Your task to perform on an android device: turn off wifi Image 0: 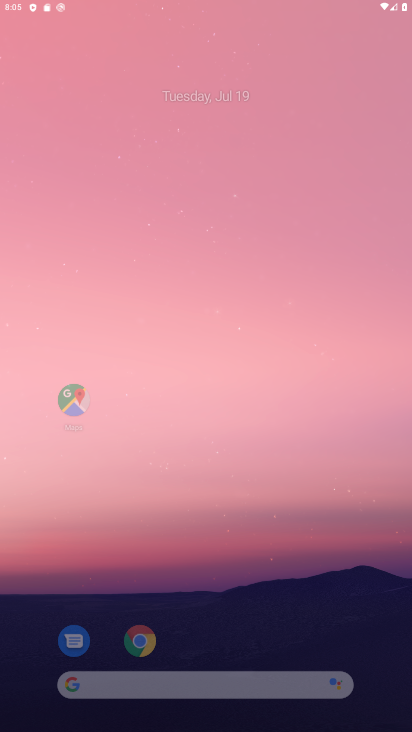
Step 0: press home button
Your task to perform on an android device: turn off wifi Image 1: 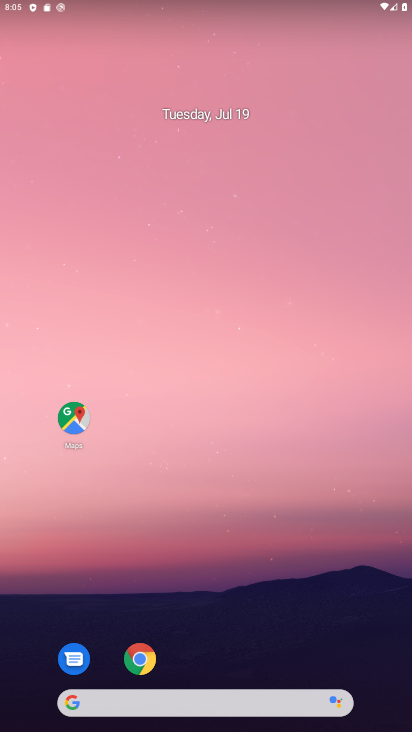
Step 1: drag from (310, 672) to (229, 114)
Your task to perform on an android device: turn off wifi Image 2: 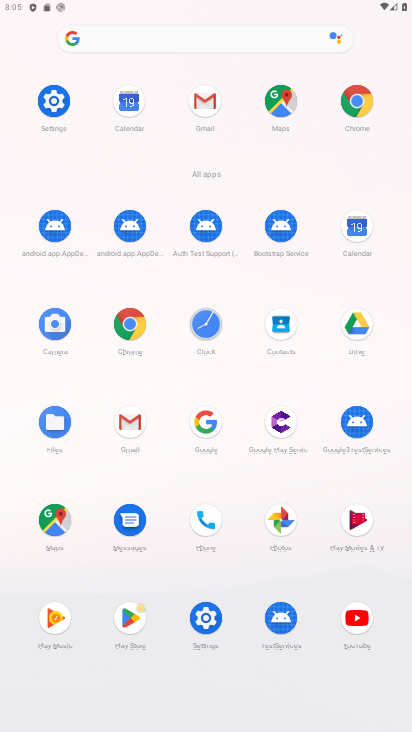
Step 2: click (376, 6)
Your task to perform on an android device: turn off wifi Image 3: 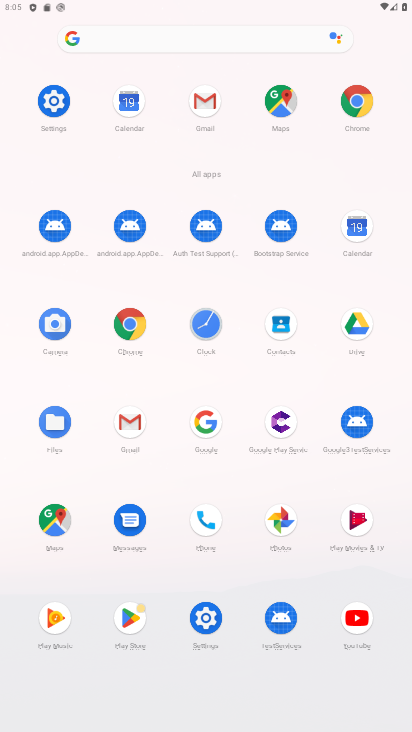
Step 3: drag from (378, 1) to (315, 474)
Your task to perform on an android device: turn off wifi Image 4: 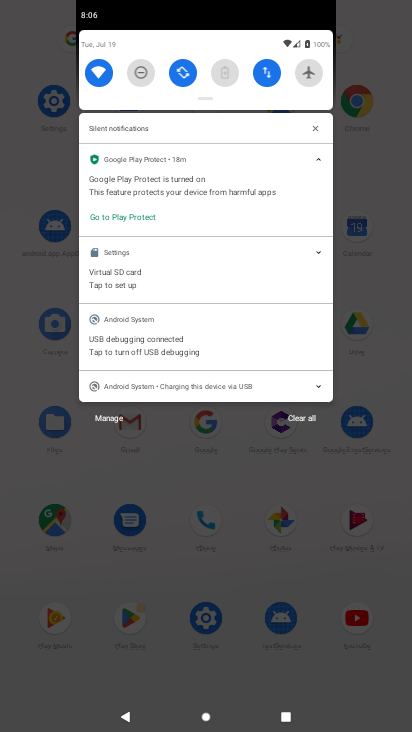
Step 4: click (108, 69)
Your task to perform on an android device: turn off wifi Image 5: 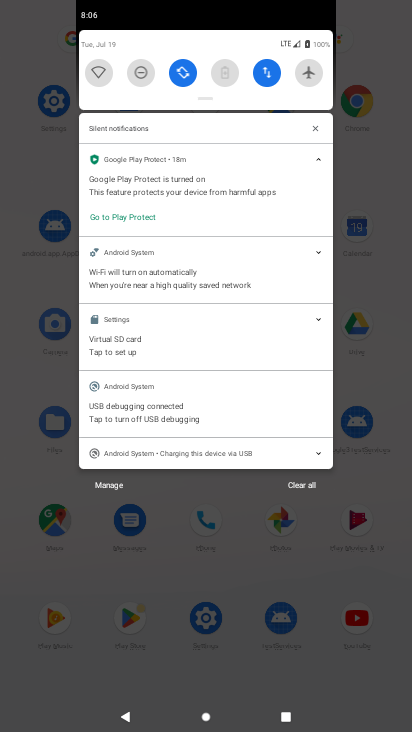
Step 5: task complete